Your task to perform on an android device: toggle airplane mode Image 0: 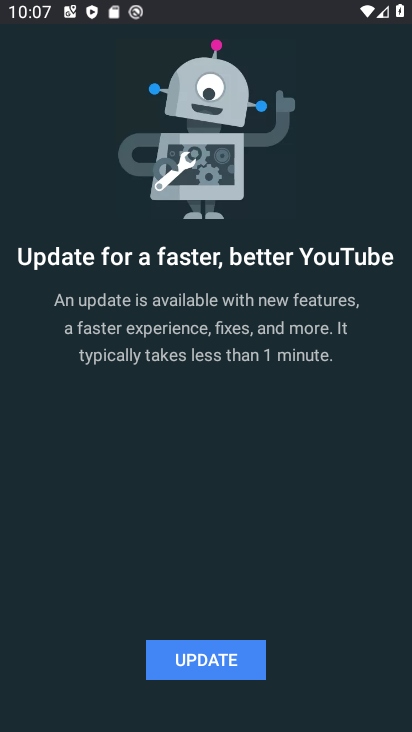
Step 0: drag from (300, 31) to (247, 330)
Your task to perform on an android device: toggle airplane mode Image 1: 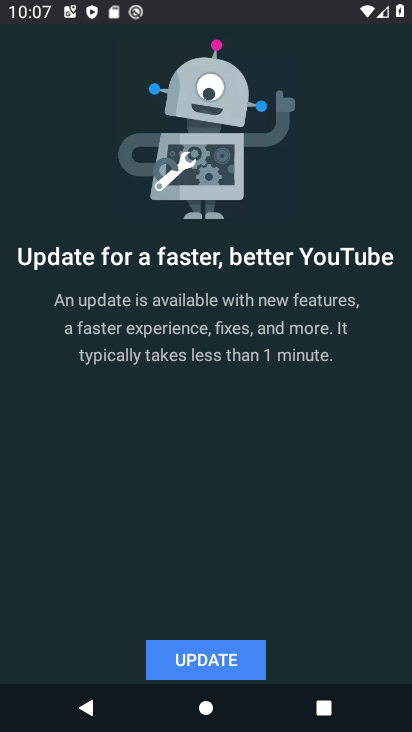
Step 1: drag from (296, 7) to (274, 522)
Your task to perform on an android device: toggle airplane mode Image 2: 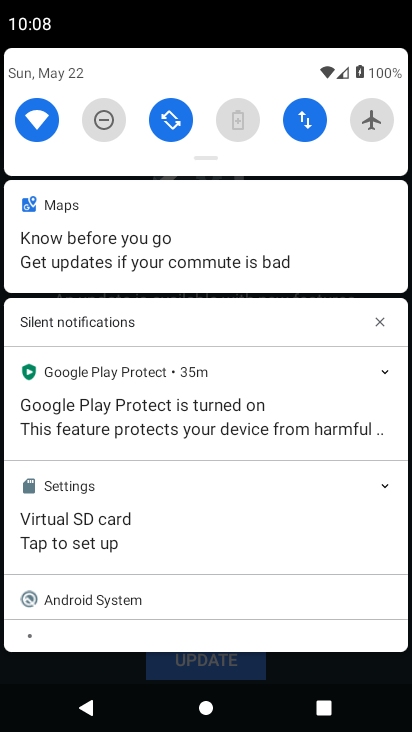
Step 2: click (374, 121)
Your task to perform on an android device: toggle airplane mode Image 3: 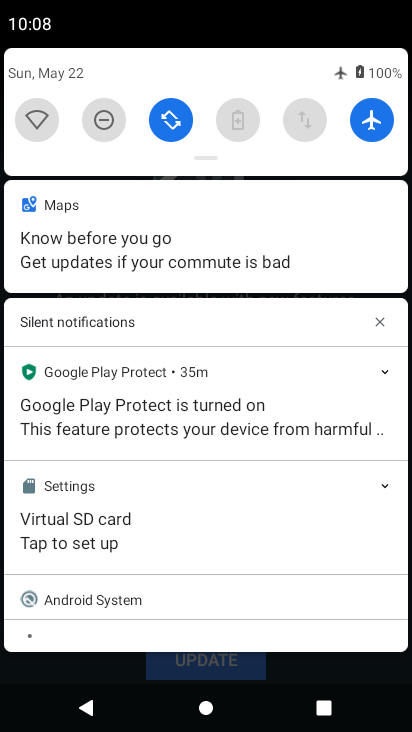
Step 3: task complete